Your task to perform on an android device: turn notification dots on Image 0: 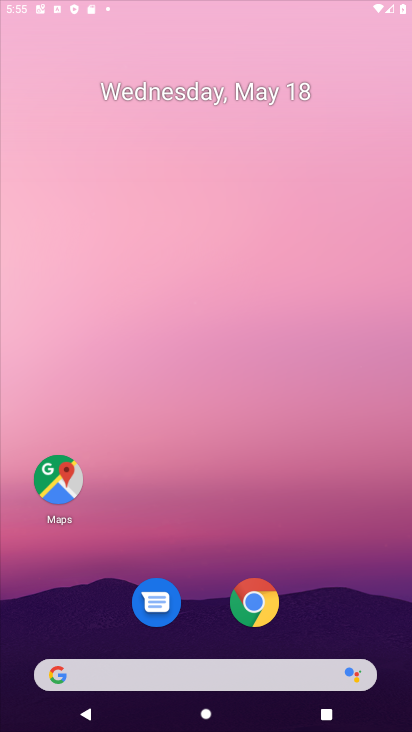
Step 0: click (320, 18)
Your task to perform on an android device: turn notification dots on Image 1: 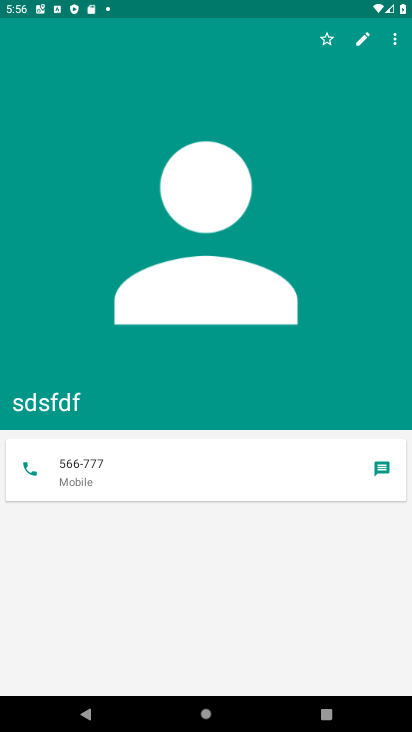
Step 1: press home button
Your task to perform on an android device: turn notification dots on Image 2: 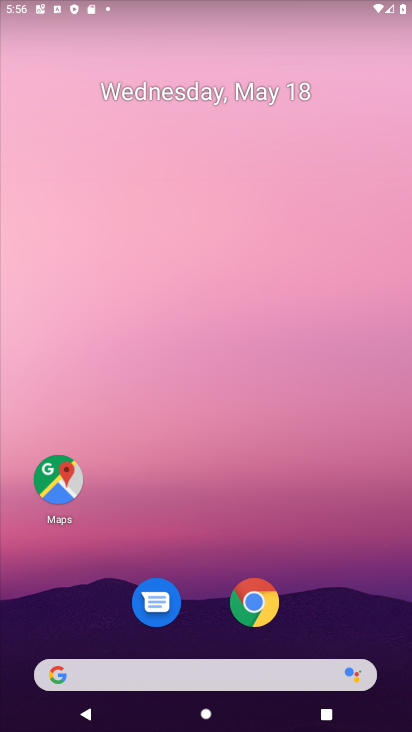
Step 2: drag from (306, 640) to (357, 0)
Your task to perform on an android device: turn notification dots on Image 3: 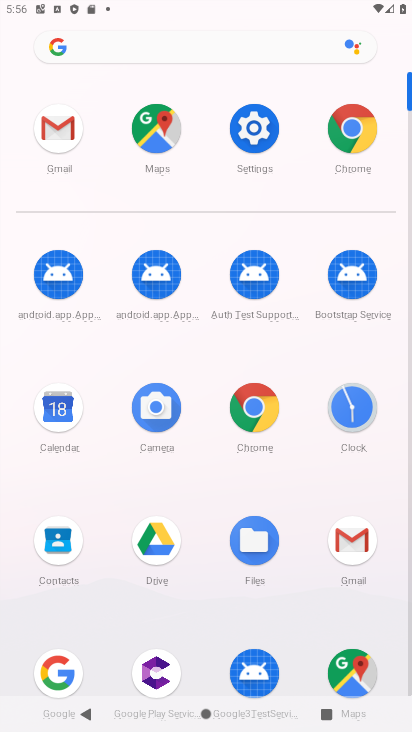
Step 3: click (255, 138)
Your task to perform on an android device: turn notification dots on Image 4: 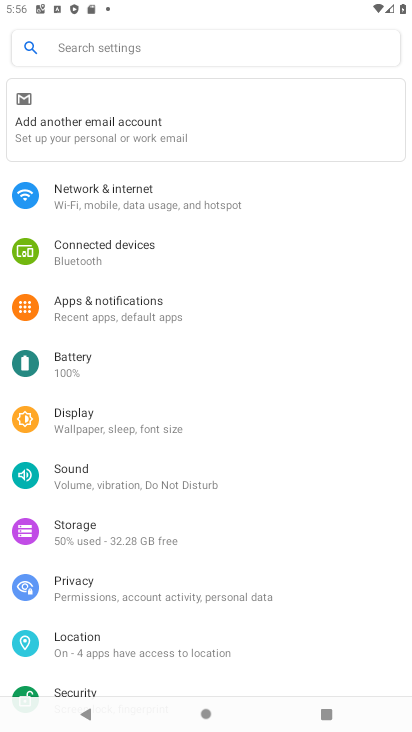
Step 4: click (181, 300)
Your task to perform on an android device: turn notification dots on Image 5: 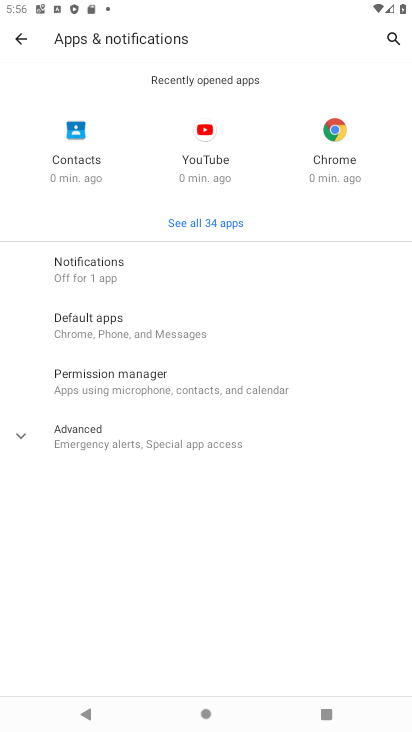
Step 5: click (107, 270)
Your task to perform on an android device: turn notification dots on Image 6: 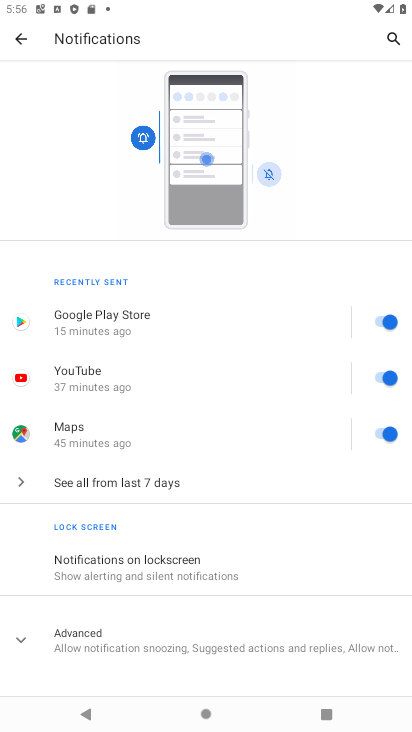
Step 6: click (131, 630)
Your task to perform on an android device: turn notification dots on Image 7: 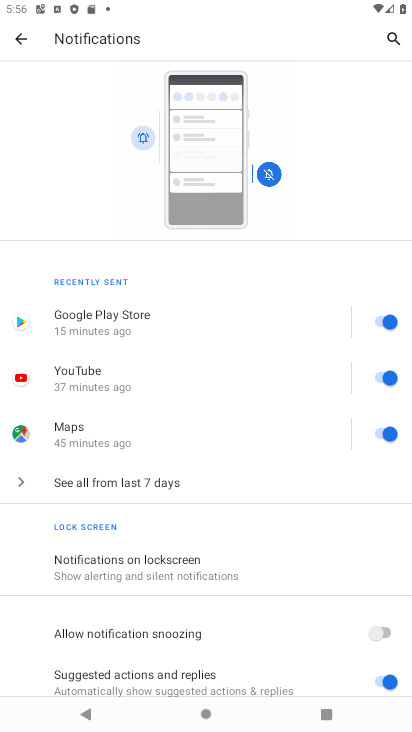
Step 7: task complete